Your task to perform on an android device: set the stopwatch Image 0: 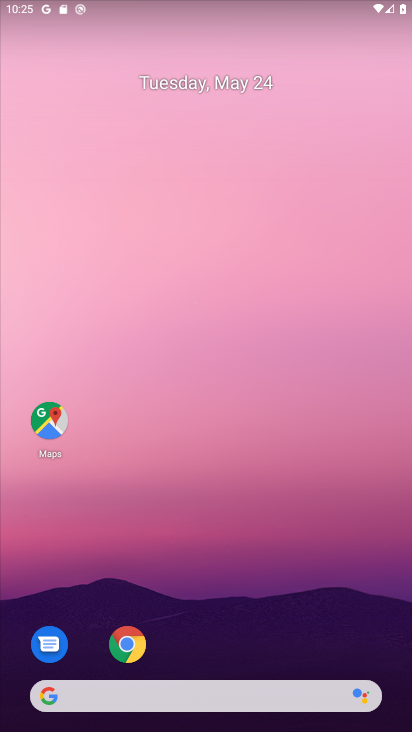
Step 0: drag from (195, 600) to (209, 34)
Your task to perform on an android device: set the stopwatch Image 1: 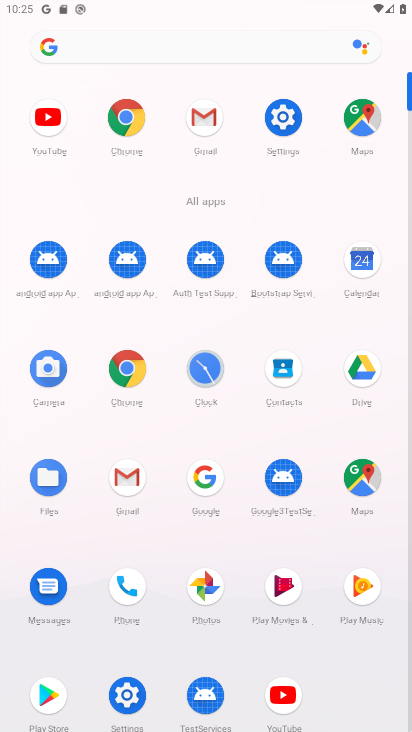
Step 1: click (201, 370)
Your task to perform on an android device: set the stopwatch Image 2: 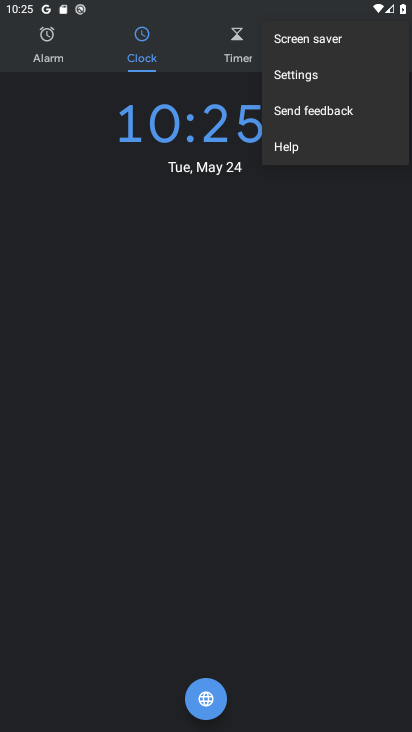
Step 2: click (231, 236)
Your task to perform on an android device: set the stopwatch Image 3: 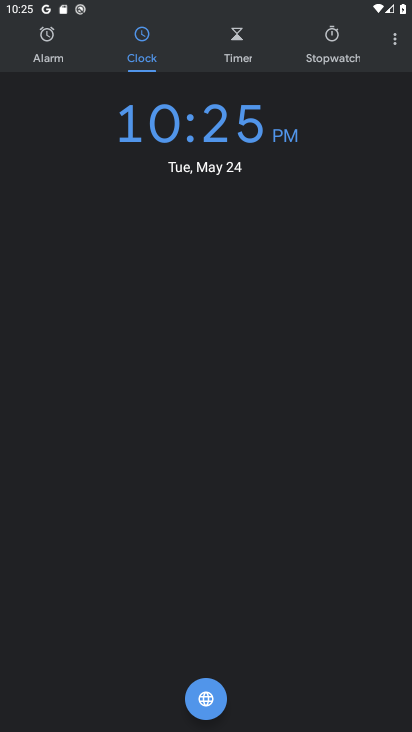
Step 3: click (231, 236)
Your task to perform on an android device: set the stopwatch Image 4: 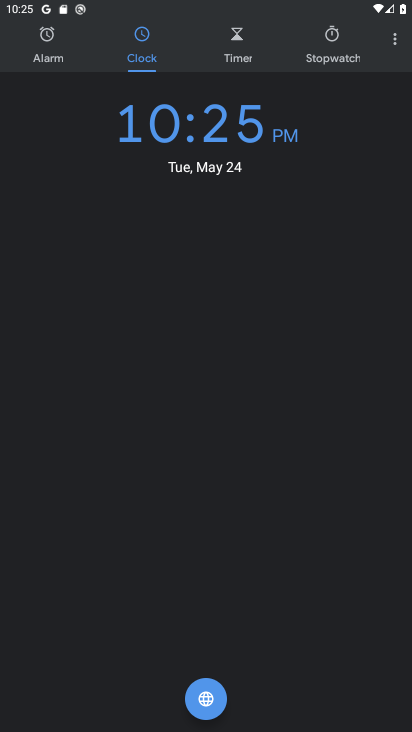
Step 4: click (331, 31)
Your task to perform on an android device: set the stopwatch Image 5: 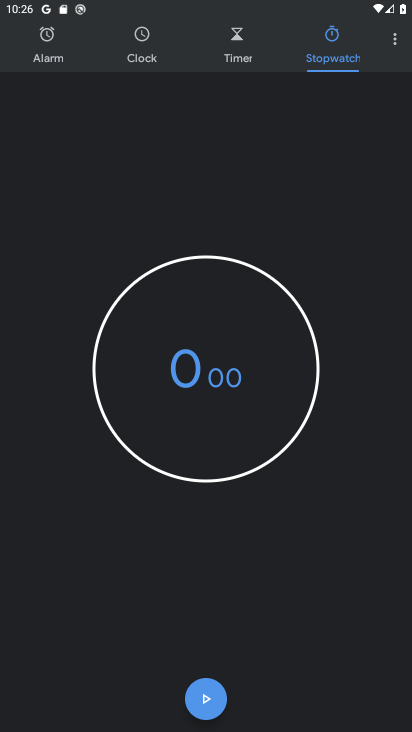
Step 5: task complete